Your task to perform on an android device: empty trash in google photos Image 0: 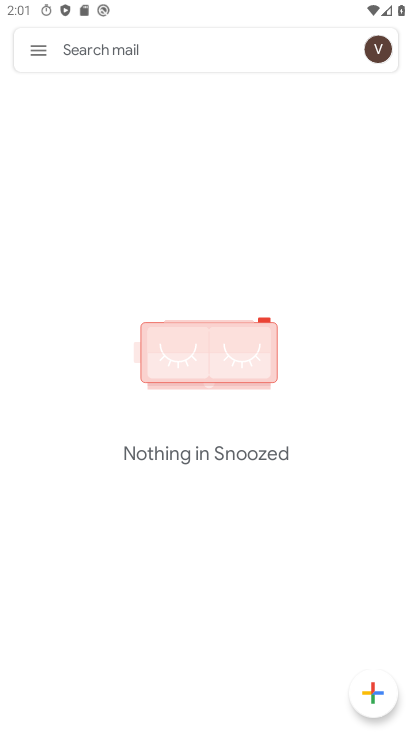
Step 0: press home button
Your task to perform on an android device: empty trash in google photos Image 1: 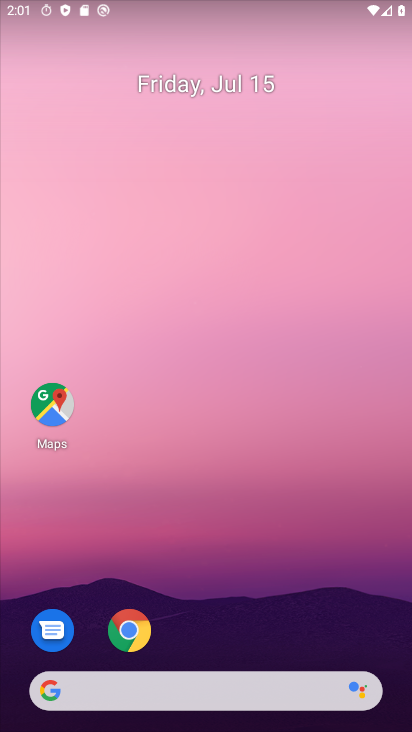
Step 1: drag from (235, 628) to (223, 120)
Your task to perform on an android device: empty trash in google photos Image 2: 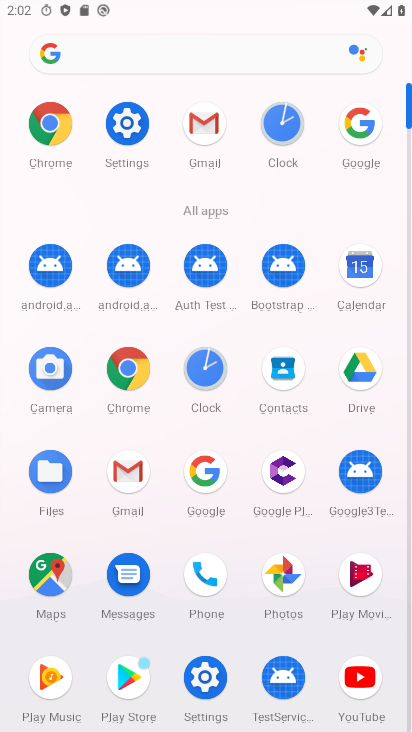
Step 2: click (279, 568)
Your task to perform on an android device: empty trash in google photos Image 3: 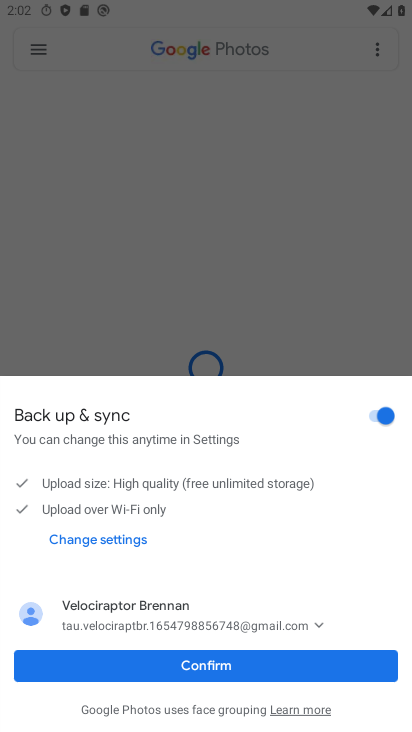
Step 3: click (214, 678)
Your task to perform on an android device: empty trash in google photos Image 4: 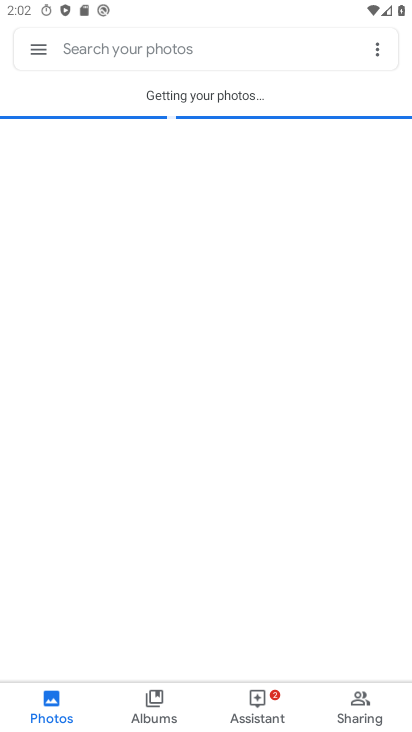
Step 4: click (35, 48)
Your task to perform on an android device: empty trash in google photos Image 5: 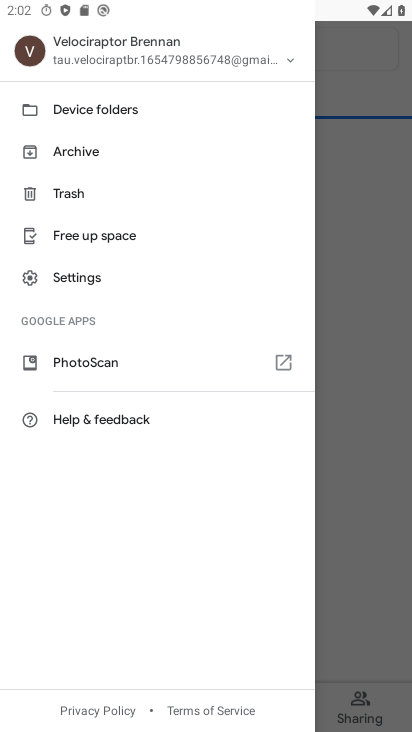
Step 5: click (79, 196)
Your task to perform on an android device: empty trash in google photos Image 6: 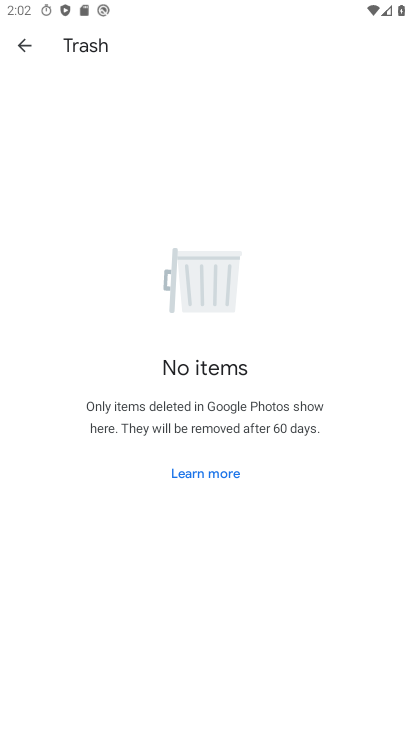
Step 6: task complete